Your task to perform on an android device: Open settings on Google Maps Image 0: 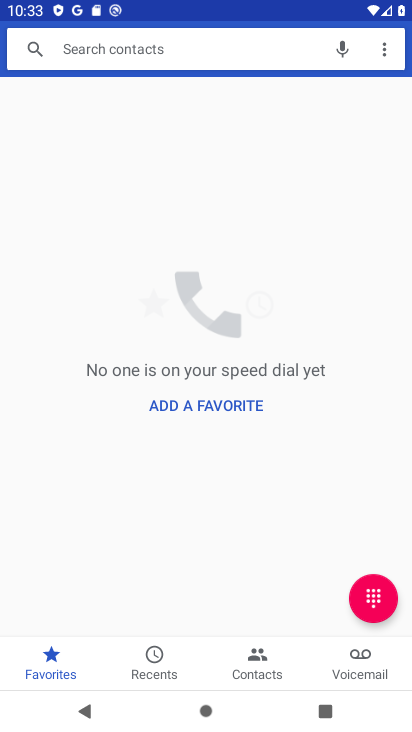
Step 0: press home button
Your task to perform on an android device: Open settings on Google Maps Image 1: 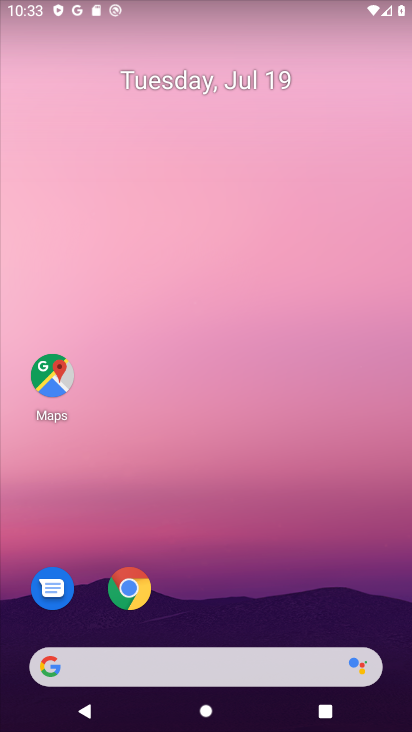
Step 1: click (52, 375)
Your task to perform on an android device: Open settings on Google Maps Image 2: 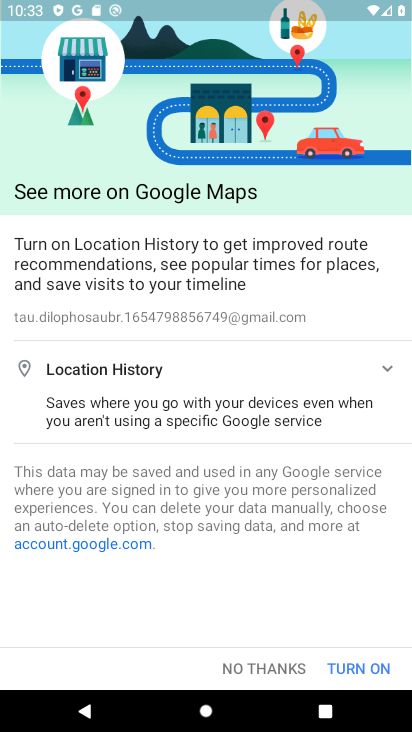
Step 2: task complete